Your task to perform on an android device: turn notification dots off Image 0: 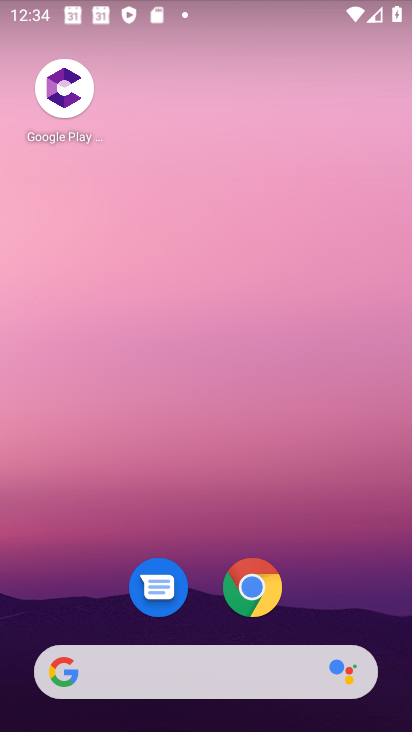
Step 0: drag from (269, 642) to (239, 173)
Your task to perform on an android device: turn notification dots off Image 1: 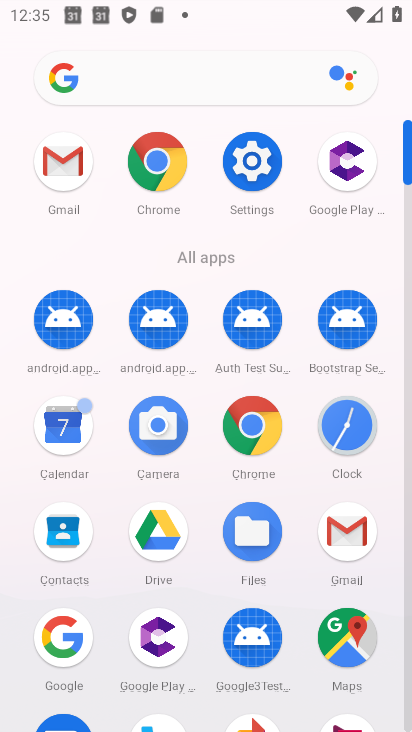
Step 1: click (262, 177)
Your task to perform on an android device: turn notification dots off Image 2: 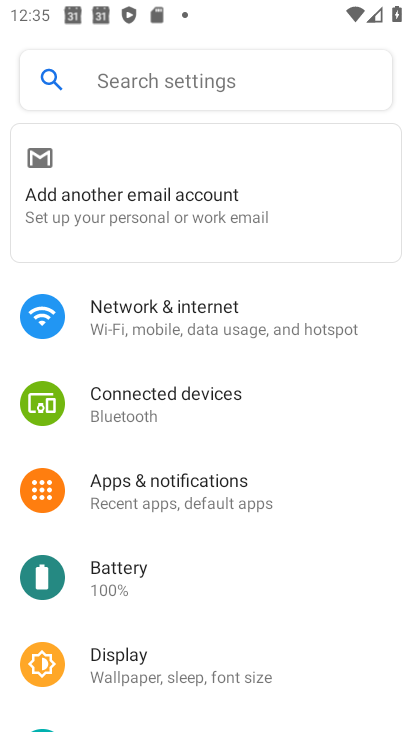
Step 2: click (235, 483)
Your task to perform on an android device: turn notification dots off Image 3: 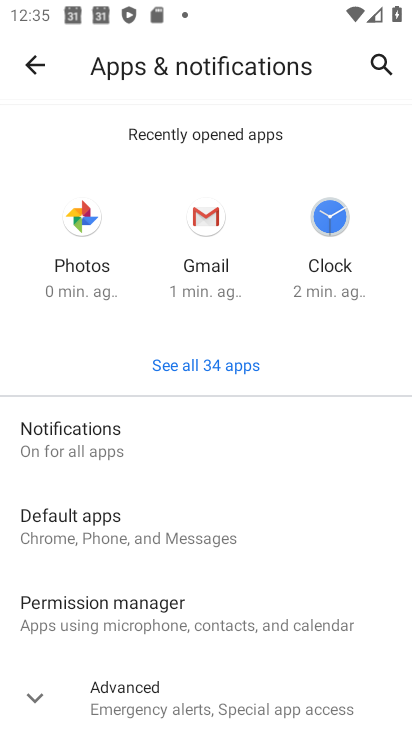
Step 3: click (147, 424)
Your task to perform on an android device: turn notification dots off Image 4: 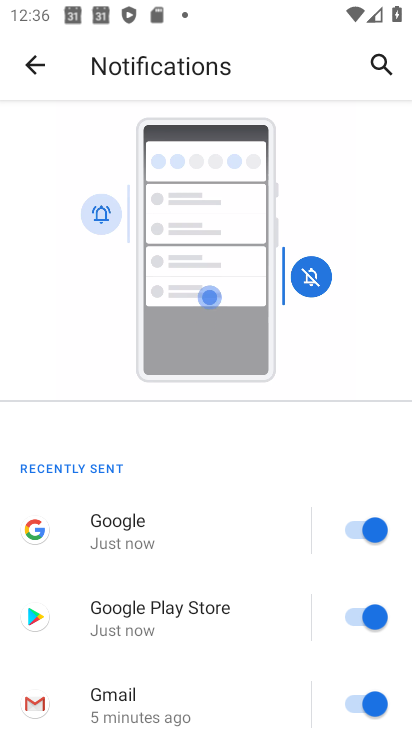
Step 4: drag from (267, 644) to (322, 46)
Your task to perform on an android device: turn notification dots off Image 5: 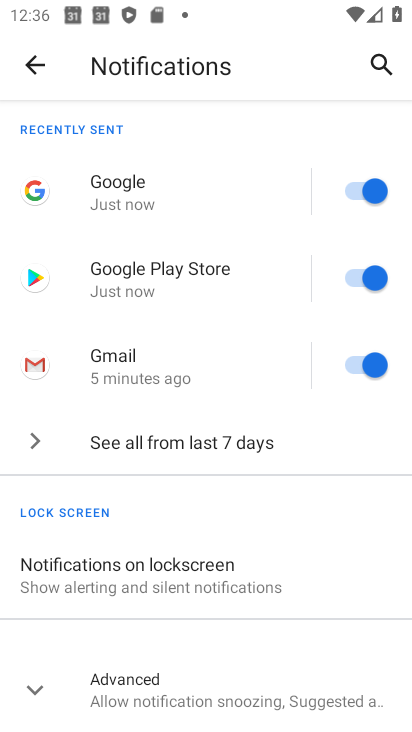
Step 5: click (252, 693)
Your task to perform on an android device: turn notification dots off Image 6: 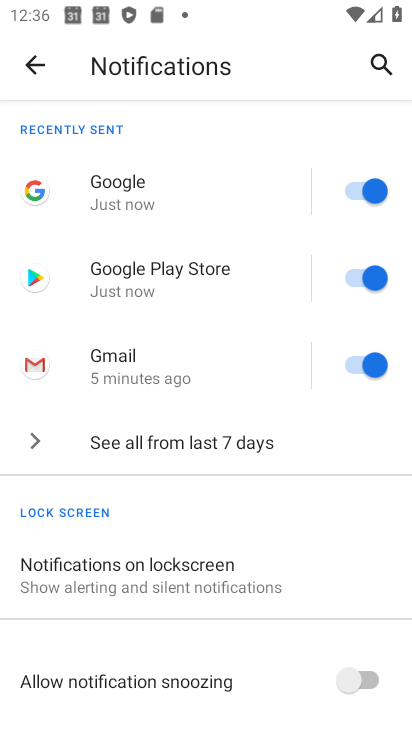
Step 6: drag from (92, 649) to (226, 280)
Your task to perform on an android device: turn notification dots off Image 7: 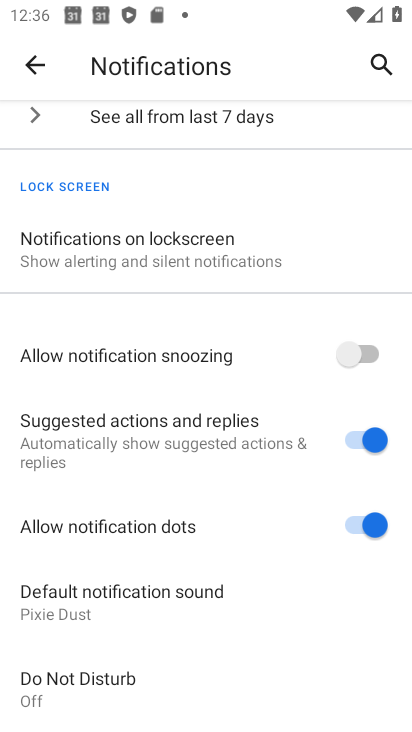
Step 7: click (304, 522)
Your task to perform on an android device: turn notification dots off Image 8: 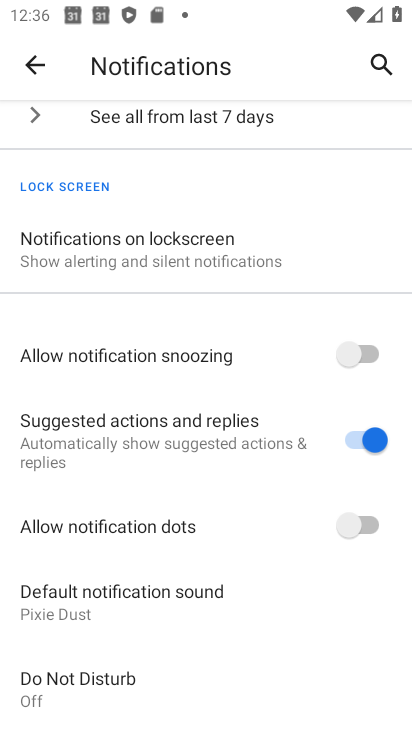
Step 8: task complete